Your task to perform on an android device: Open calendar and show me the fourth week of next month Image 0: 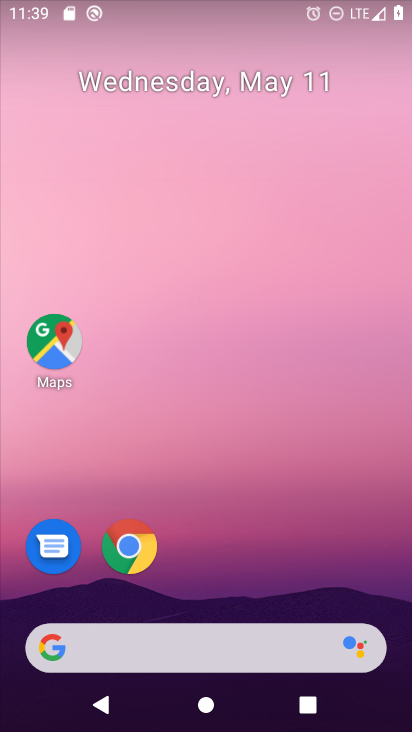
Step 0: drag from (389, 626) to (257, 101)
Your task to perform on an android device: Open calendar and show me the fourth week of next month Image 1: 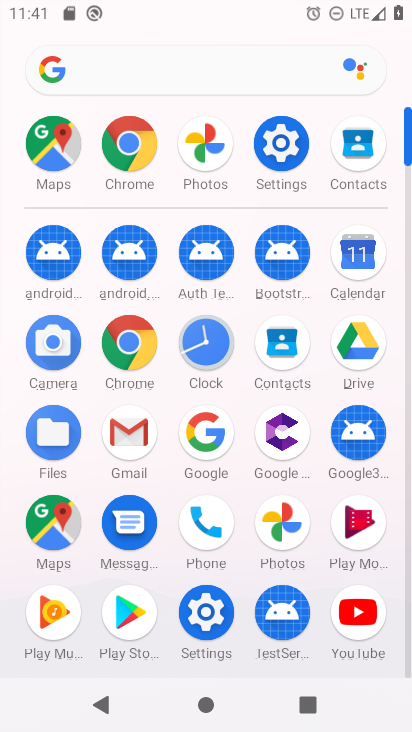
Step 1: click (352, 270)
Your task to perform on an android device: Open calendar and show me the fourth week of next month Image 2: 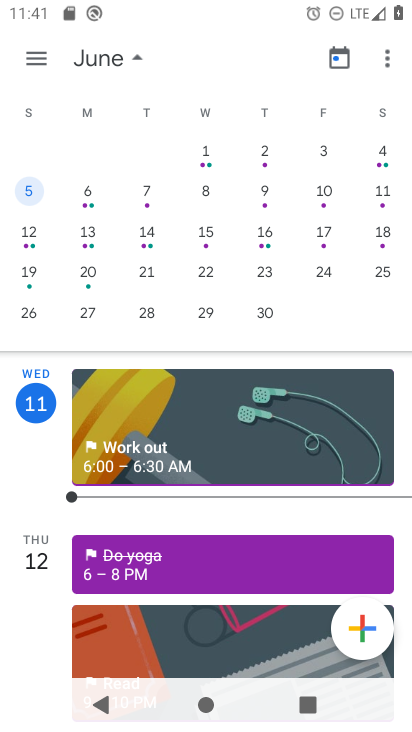
Step 2: drag from (382, 256) to (14, 207)
Your task to perform on an android device: Open calendar and show me the fourth week of next month Image 3: 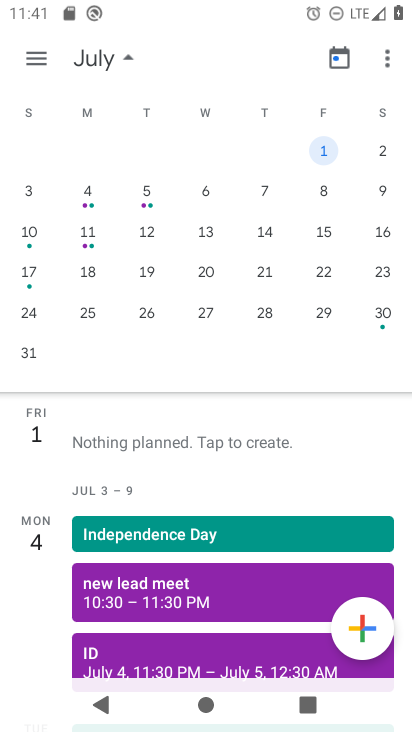
Step 3: click (384, 312)
Your task to perform on an android device: Open calendar and show me the fourth week of next month Image 4: 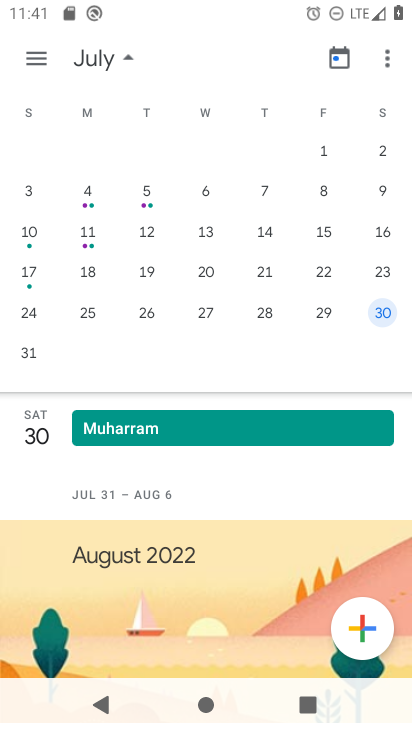
Step 4: task complete